Your task to perform on an android device: Find coffee shops on Maps Image 0: 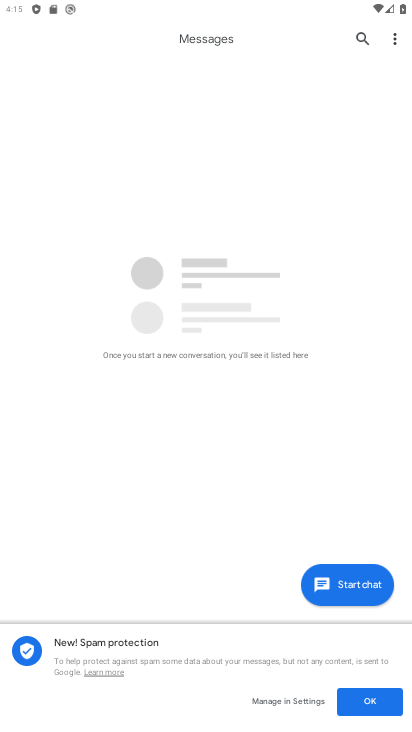
Step 0: press home button
Your task to perform on an android device: Find coffee shops on Maps Image 1: 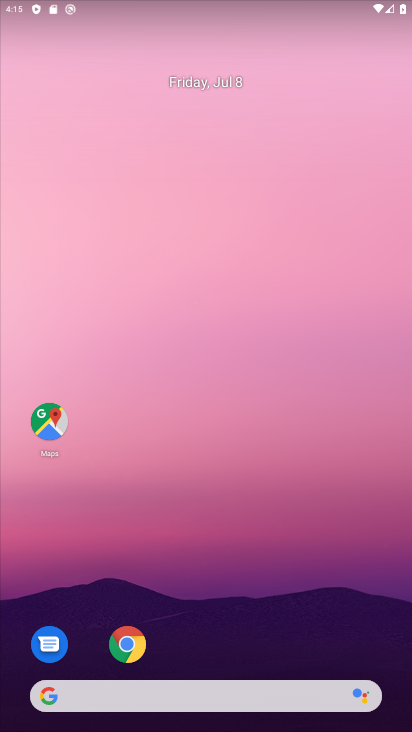
Step 1: drag from (210, 662) to (209, 63)
Your task to perform on an android device: Find coffee shops on Maps Image 2: 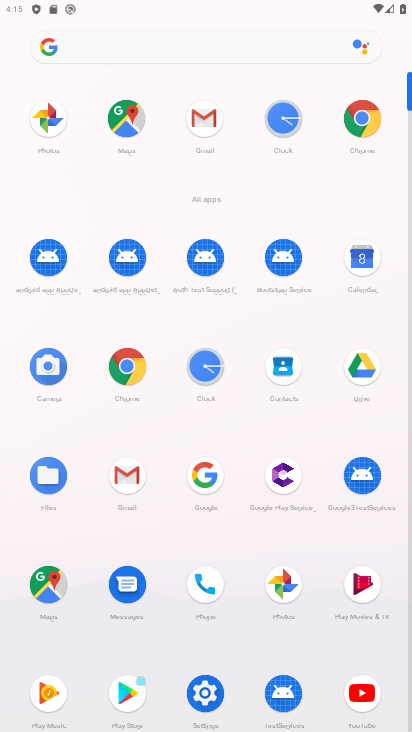
Step 2: click (48, 581)
Your task to perform on an android device: Find coffee shops on Maps Image 3: 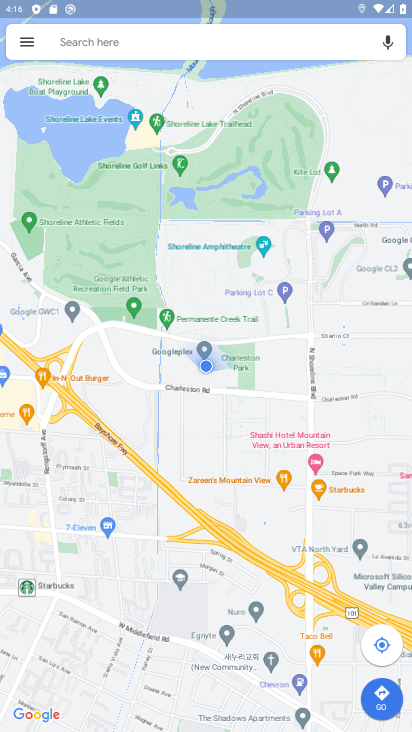
Step 3: click (99, 42)
Your task to perform on an android device: Find coffee shops on Maps Image 4: 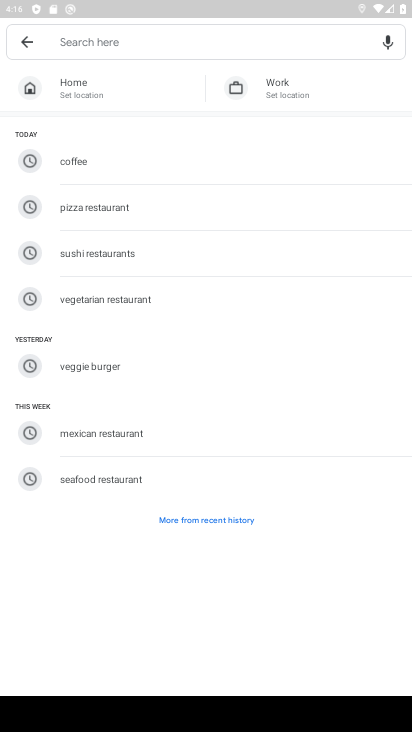
Step 4: click (93, 168)
Your task to perform on an android device: Find coffee shops on Maps Image 5: 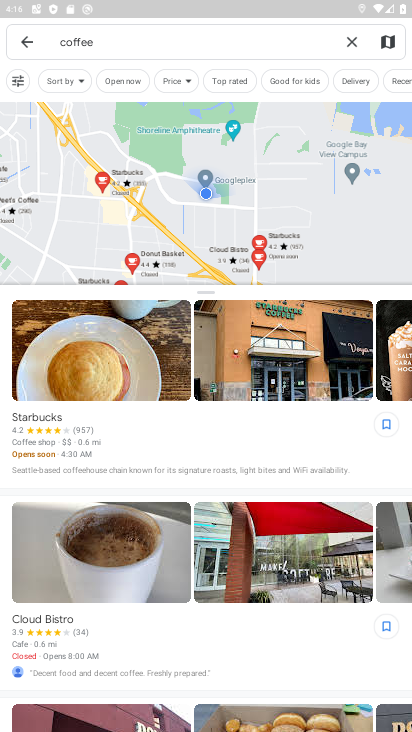
Step 5: task complete